Your task to perform on an android device: turn off picture-in-picture Image 0: 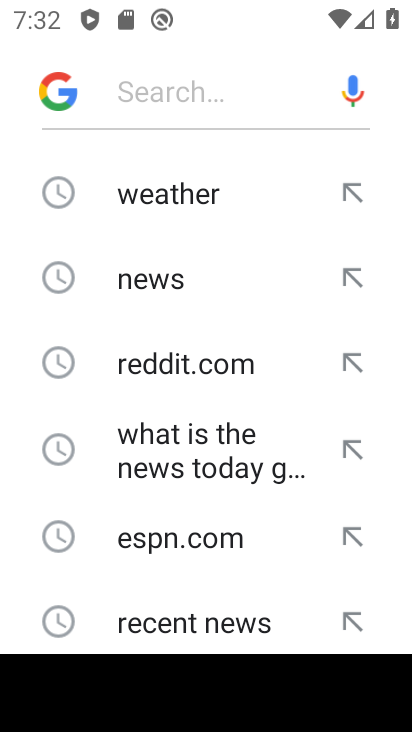
Step 0: press home button
Your task to perform on an android device: turn off picture-in-picture Image 1: 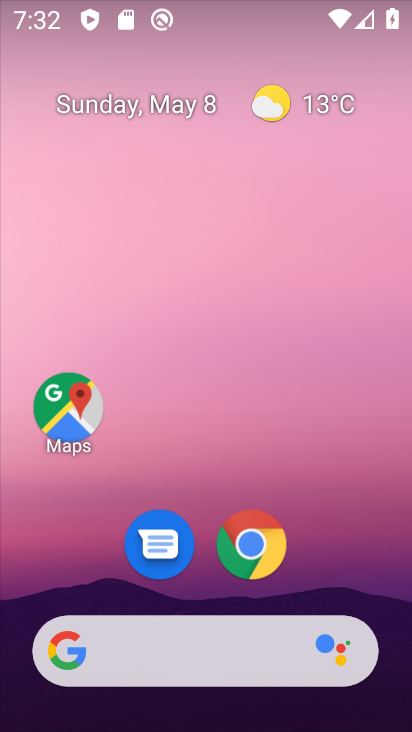
Step 1: drag from (322, 564) to (158, 37)
Your task to perform on an android device: turn off picture-in-picture Image 2: 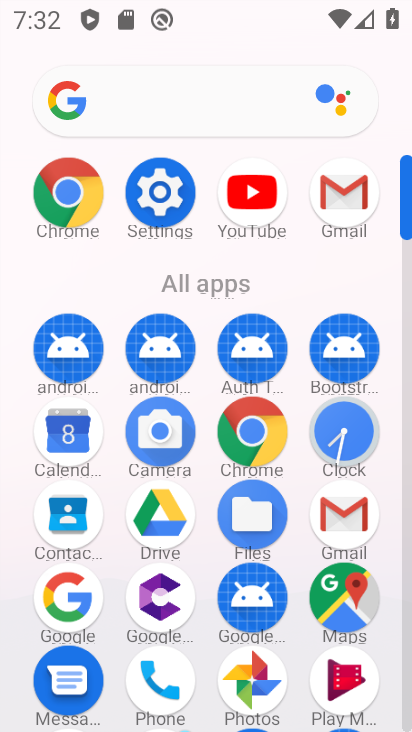
Step 2: click (159, 184)
Your task to perform on an android device: turn off picture-in-picture Image 3: 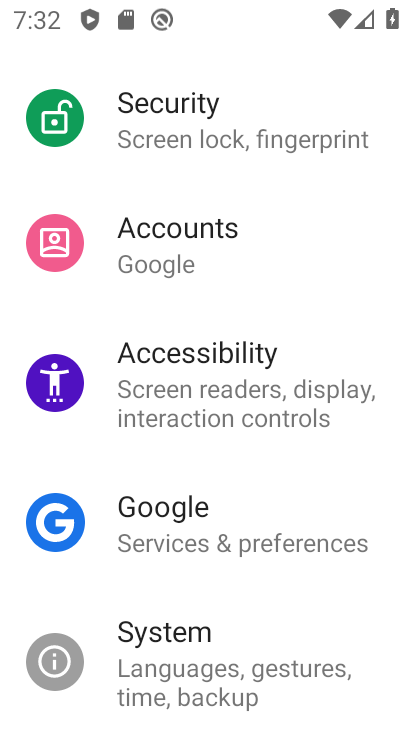
Step 3: drag from (281, 268) to (327, 636)
Your task to perform on an android device: turn off picture-in-picture Image 4: 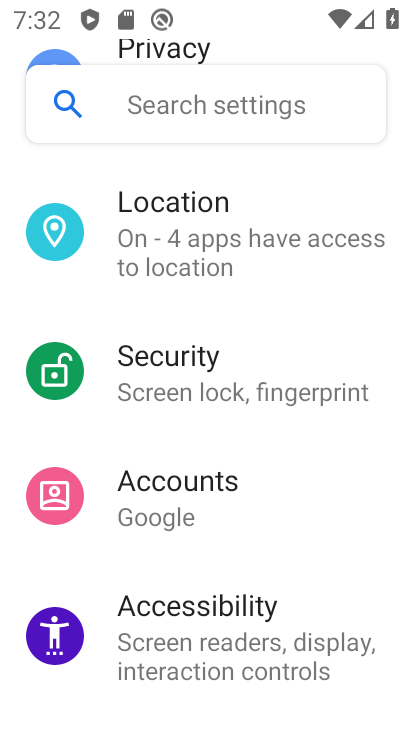
Step 4: drag from (206, 287) to (288, 598)
Your task to perform on an android device: turn off picture-in-picture Image 5: 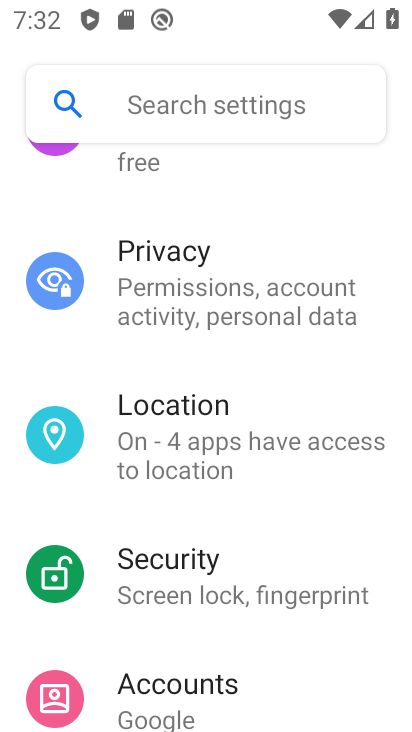
Step 5: drag from (233, 207) to (288, 419)
Your task to perform on an android device: turn off picture-in-picture Image 6: 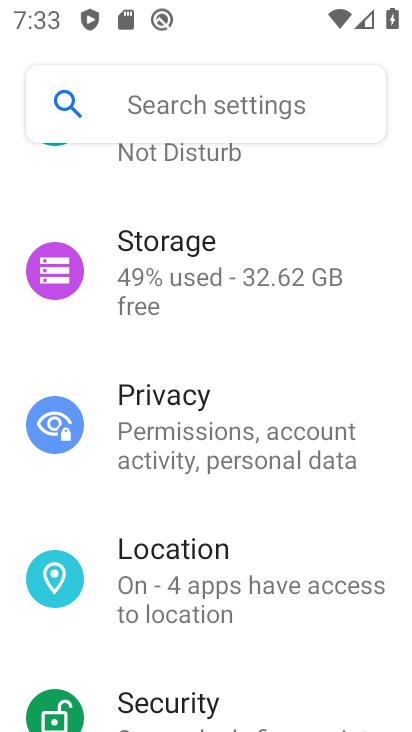
Step 6: drag from (182, 335) to (362, 731)
Your task to perform on an android device: turn off picture-in-picture Image 7: 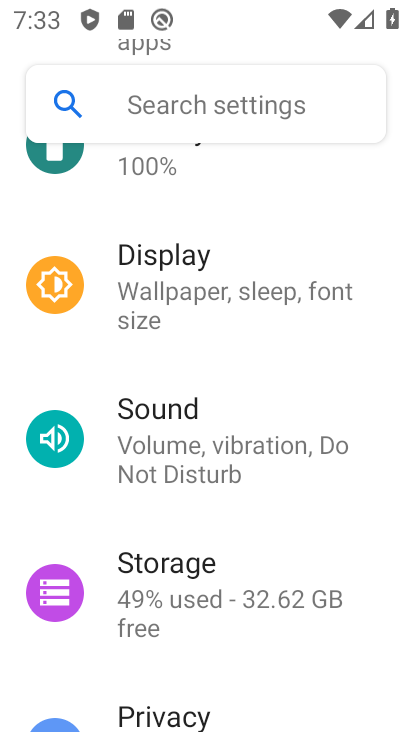
Step 7: drag from (210, 337) to (340, 578)
Your task to perform on an android device: turn off picture-in-picture Image 8: 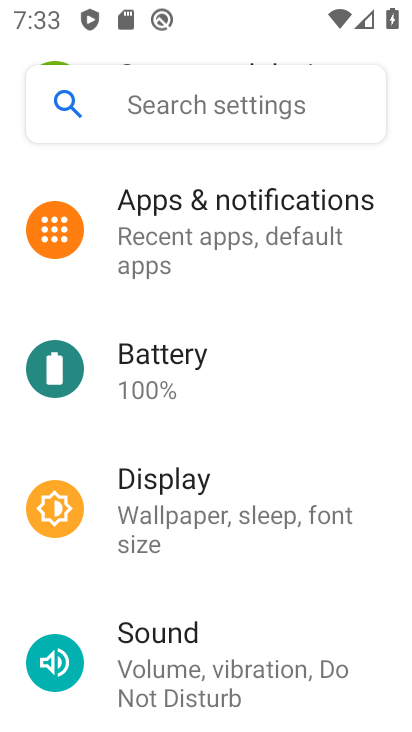
Step 8: click (235, 194)
Your task to perform on an android device: turn off picture-in-picture Image 9: 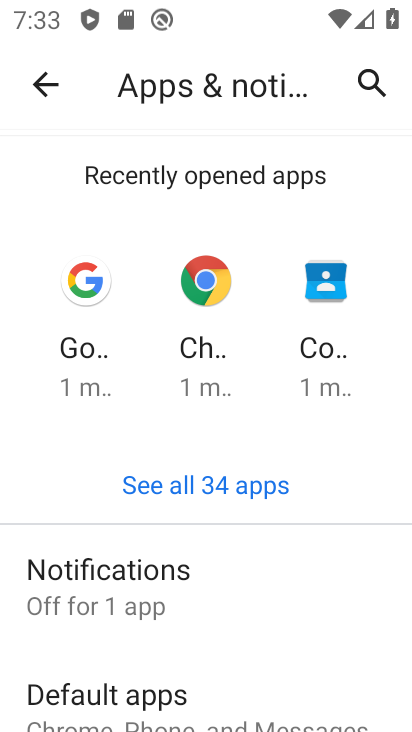
Step 9: drag from (273, 615) to (273, 182)
Your task to perform on an android device: turn off picture-in-picture Image 10: 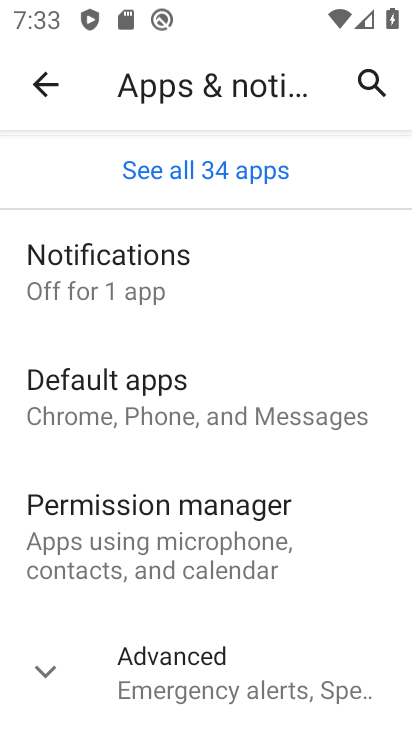
Step 10: click (129, 675)
Your task to perform on an android device: turn off picture-in-picture Image 11: 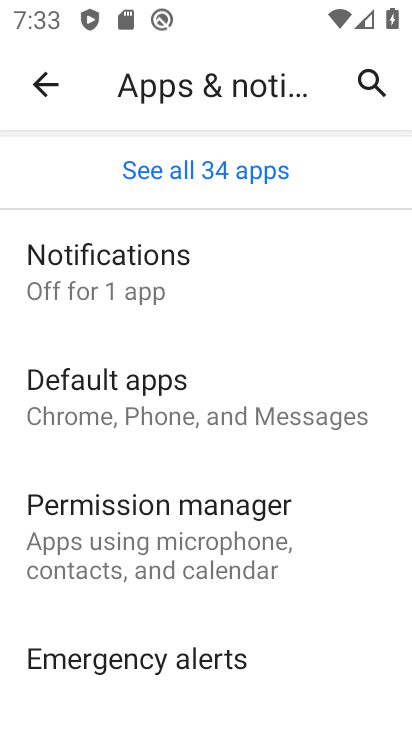
Step 11: drag from (205, 623) to (221, 281)
Your task to perform on an android device: turn off picture-in-picture Image 12: 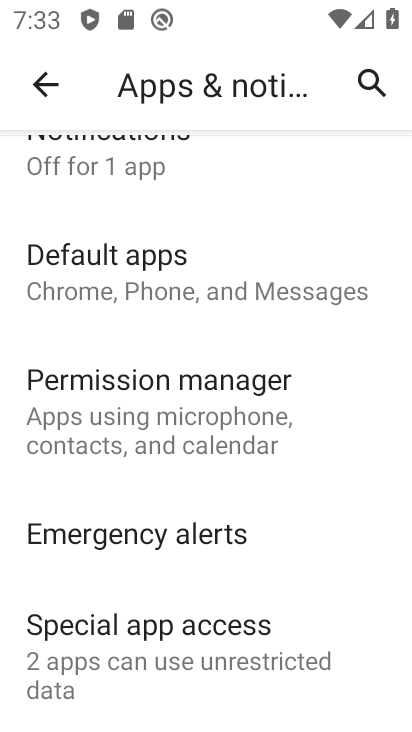
Step 12: click (73, 644)
Your task to perform on an android device: turn off picture-in-picture Image 13: 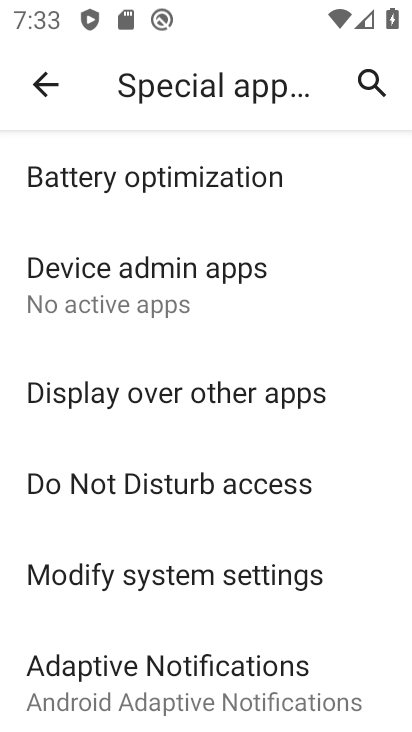
Step 13: drag from (169, 596) to (237, 289)
Your task to perform on an android device: turn off picture-in-picture Image 14: 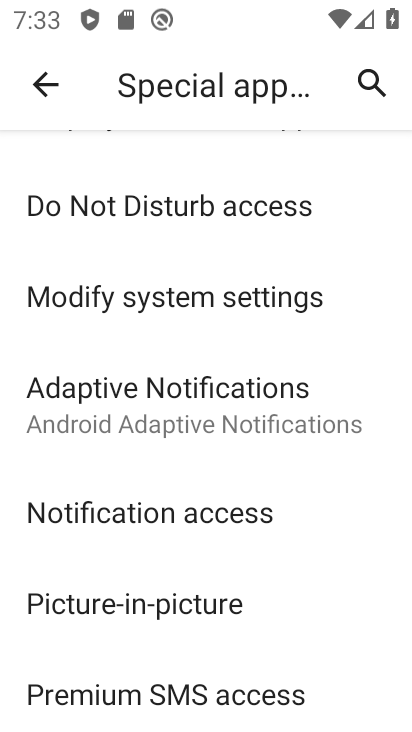
Step 14: click (154, 607)
Your task to perform on an android device: turn off picture-in-picture Image 15: 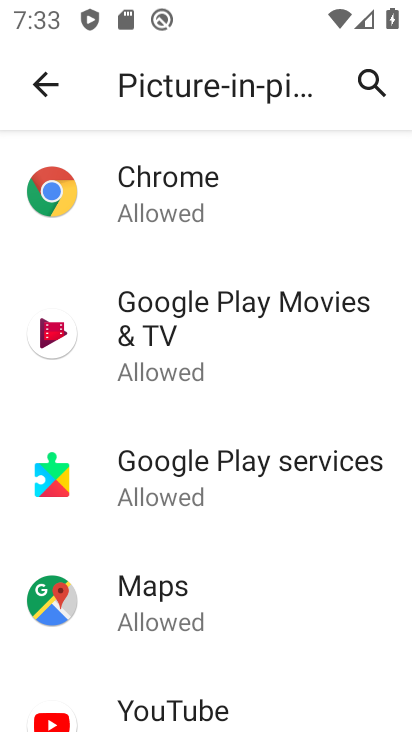
Step 15: click (148, 207)
Your task to perform on an android device: turn off picture-in-picture Image 16: 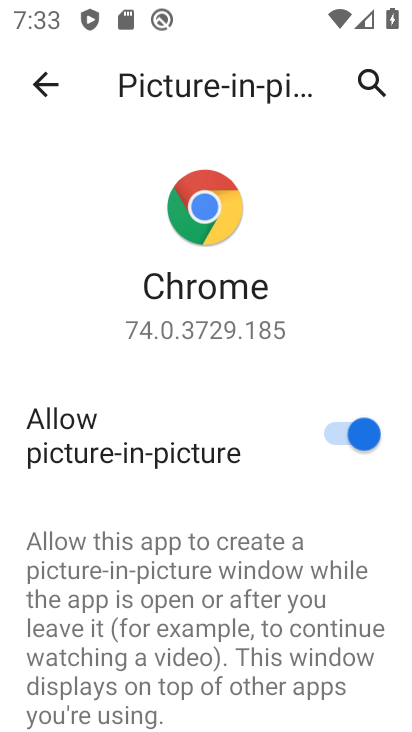
Step 16: click (368, 422)
Your task to perform on an android device: turn off picture-in-picture Image 17: 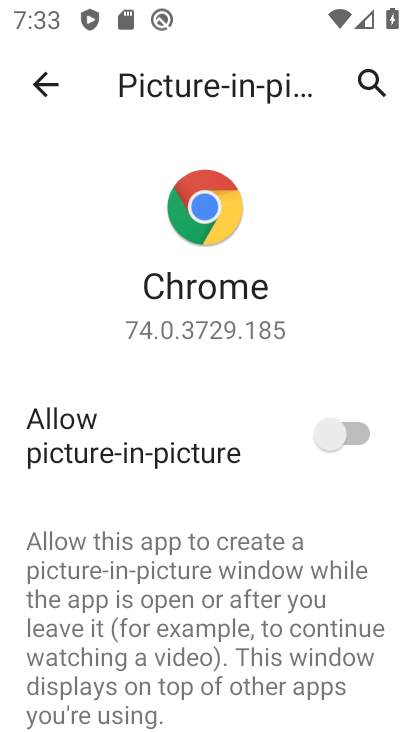
Step 17: click (47, 87)
Your task to perform on an android device: turn off picture-in-picture Image 18: 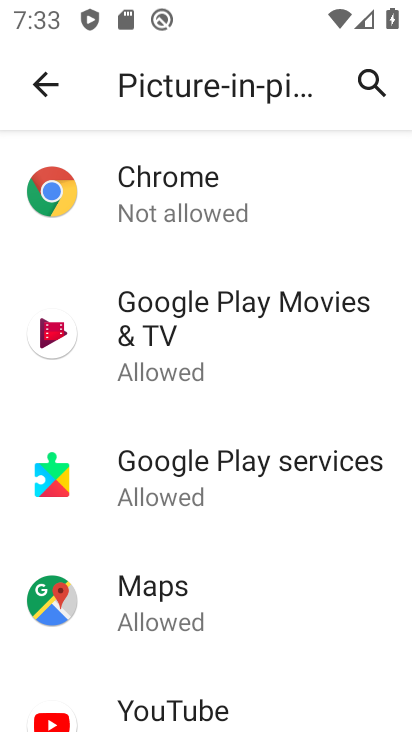
Step 18: click (140, 341)
Your task to perform on an android device: turn off picture-in-picture Image 19: 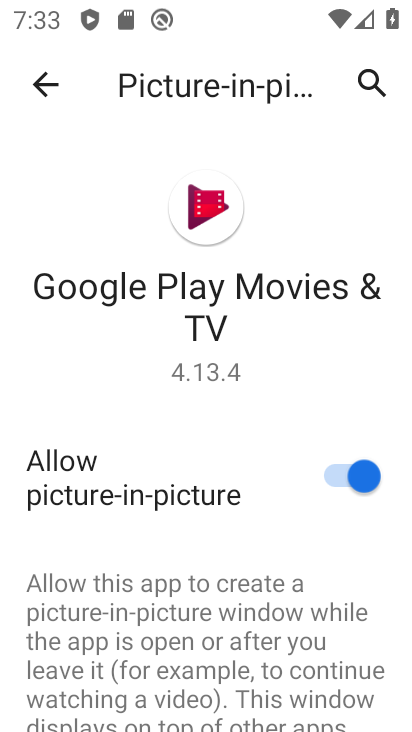
Step 19: click (362, 475)
Your task to perform on an android device: turn off picture-in-picture Image 20: 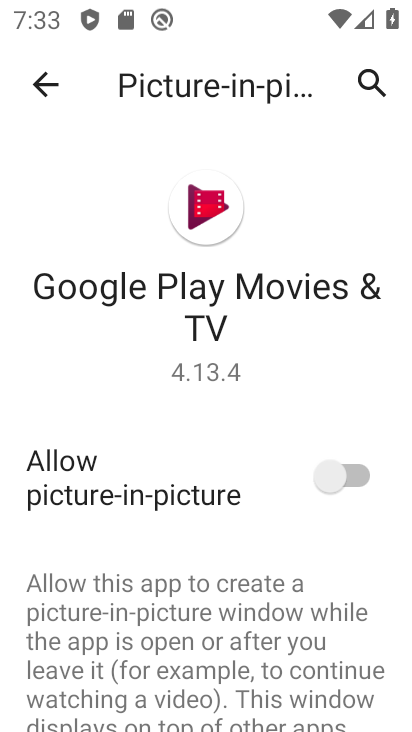
Step 20: click (38, 82)
Your task to perform on an android device: turn off picture-in-picture Image 21: 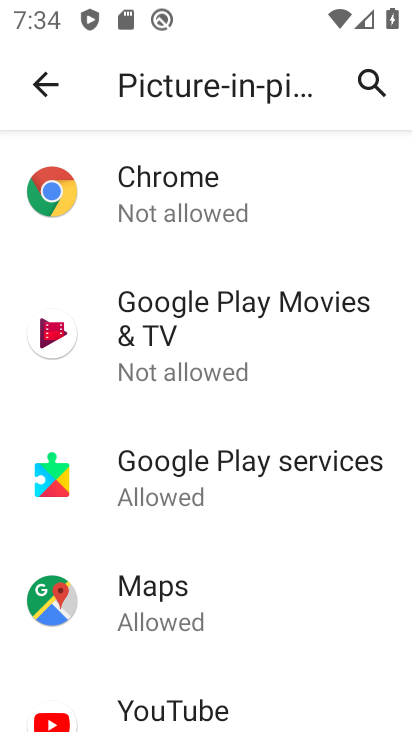
Step 21: click (160, 482)
Your task to perform on an android device: turn off picture-in-picture Image 22: 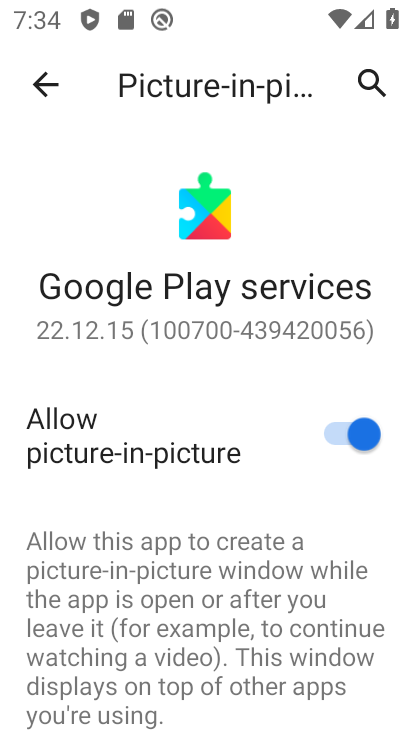
Step 22: click (357, 434)
Your task to perform on an android device: turn off picture-in-picture Image 23: 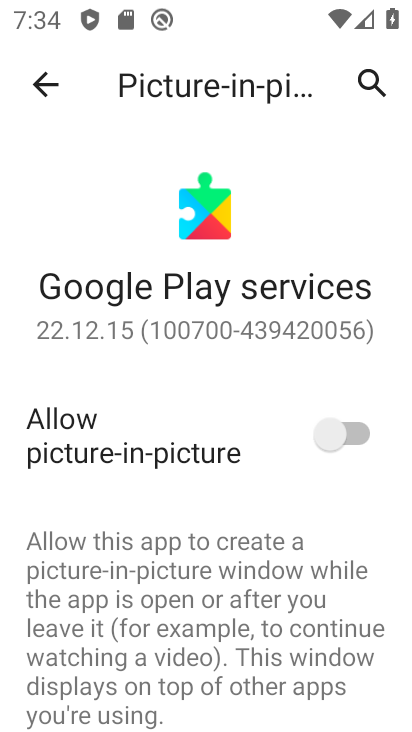
Step 23: click (44, 81)
Your task to perform on an android device: turn off picture-in-picture Image 24: 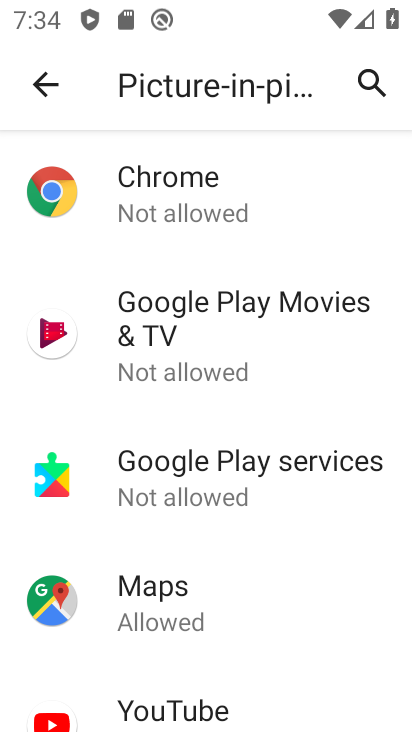
Step 24: click (150, 616)
Your task to perform on an android device: turn off picture-in-picture Image 25: 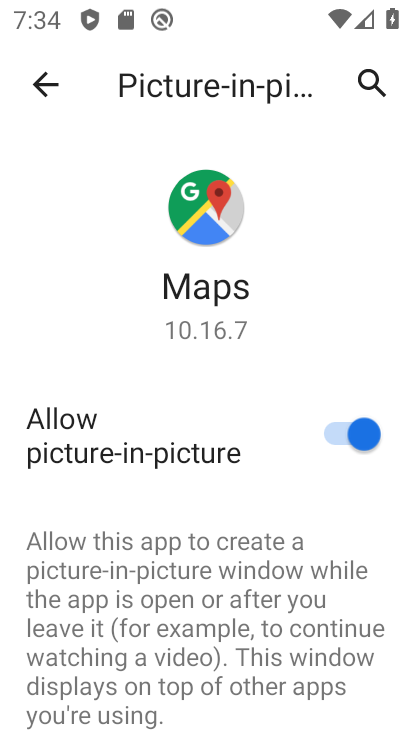
Step 25: click (361, 438)
Your task to perform on an android device: turn off picture-in-picture Image 26: 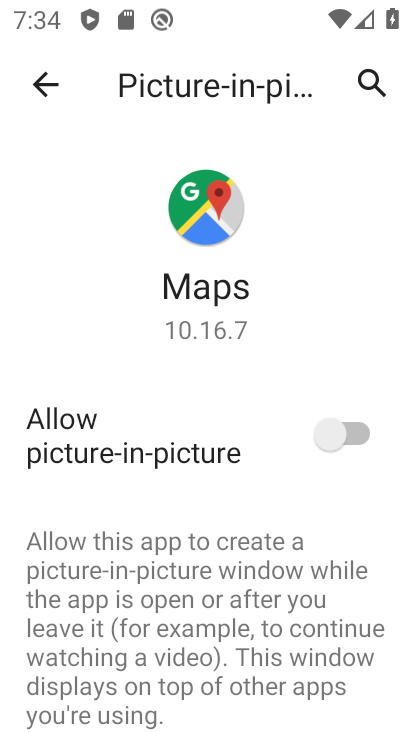
Step 26: click (37, 81)
Your task to perform on an android device: turn off picture-in-picture Image 27: 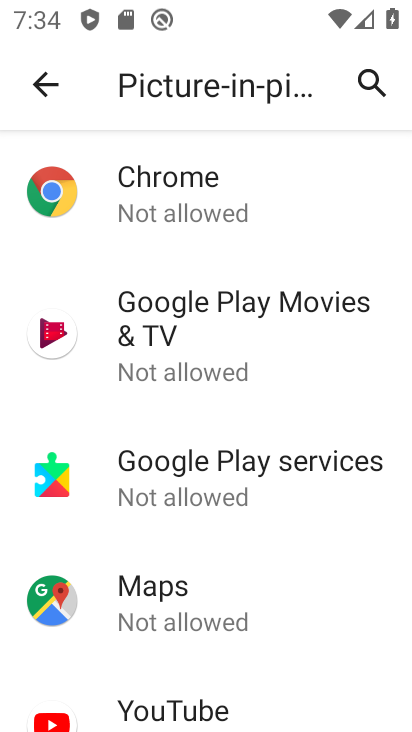
Step 27: drag from (329, 559) to (237, 158)
Your task to perform on an android device: turn off picture-in-picture Image 28: 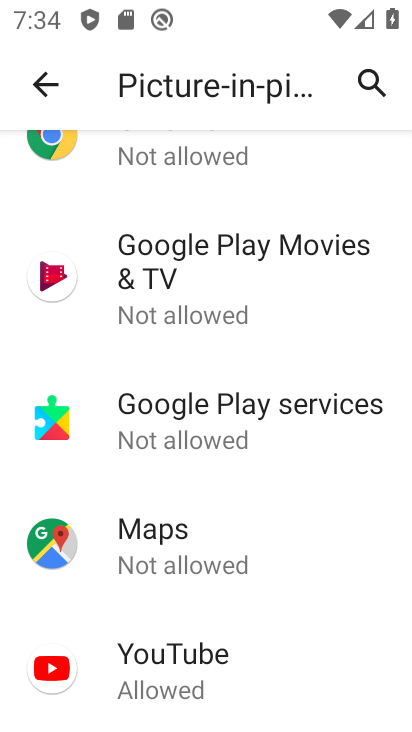
Step 28: click (133, 527)
Your task to perform on an android device: turn off picture-in-picture Image 29: 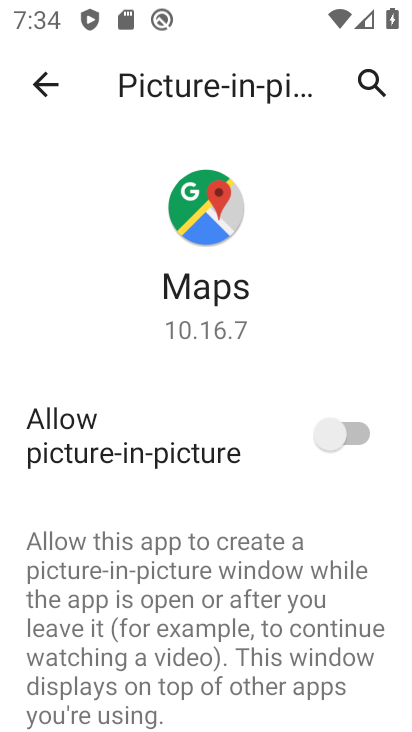
Step 29: click (42, 78)
Your task to perform on an android device: turn off picture-in-picture Image 30: 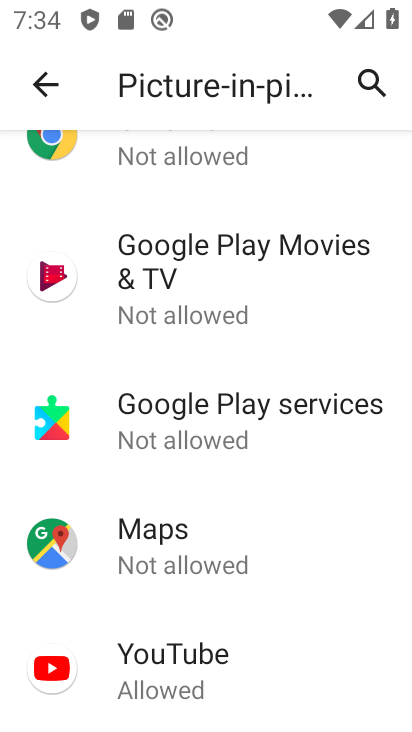
Step 30: click (155, 666)
Your task to perform on an android device: turn off picture-in-picture Image 31: 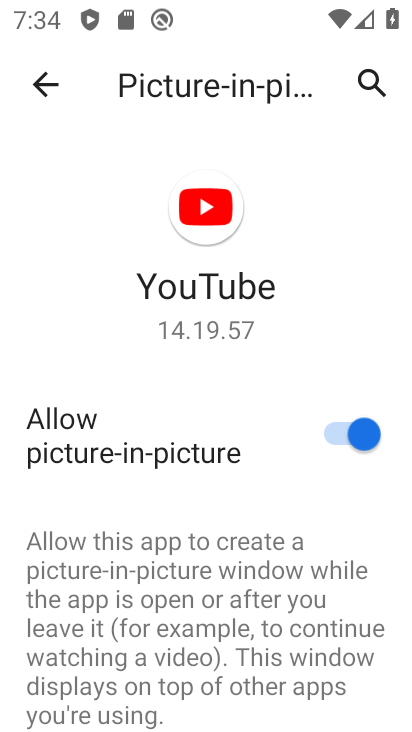
Step 31: click (355, 434)
Your task to perform on an android device: turn off picture-in-picture Image 32: 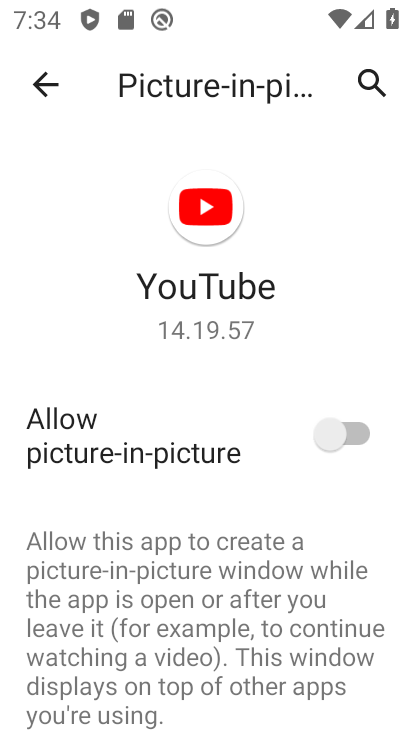
Step 32: task complete